Your task to perform on an android device: Search for bose quietcomfort 35 on ebay.com, select the first entry, add it to the cart, then select checkout. Image 0: 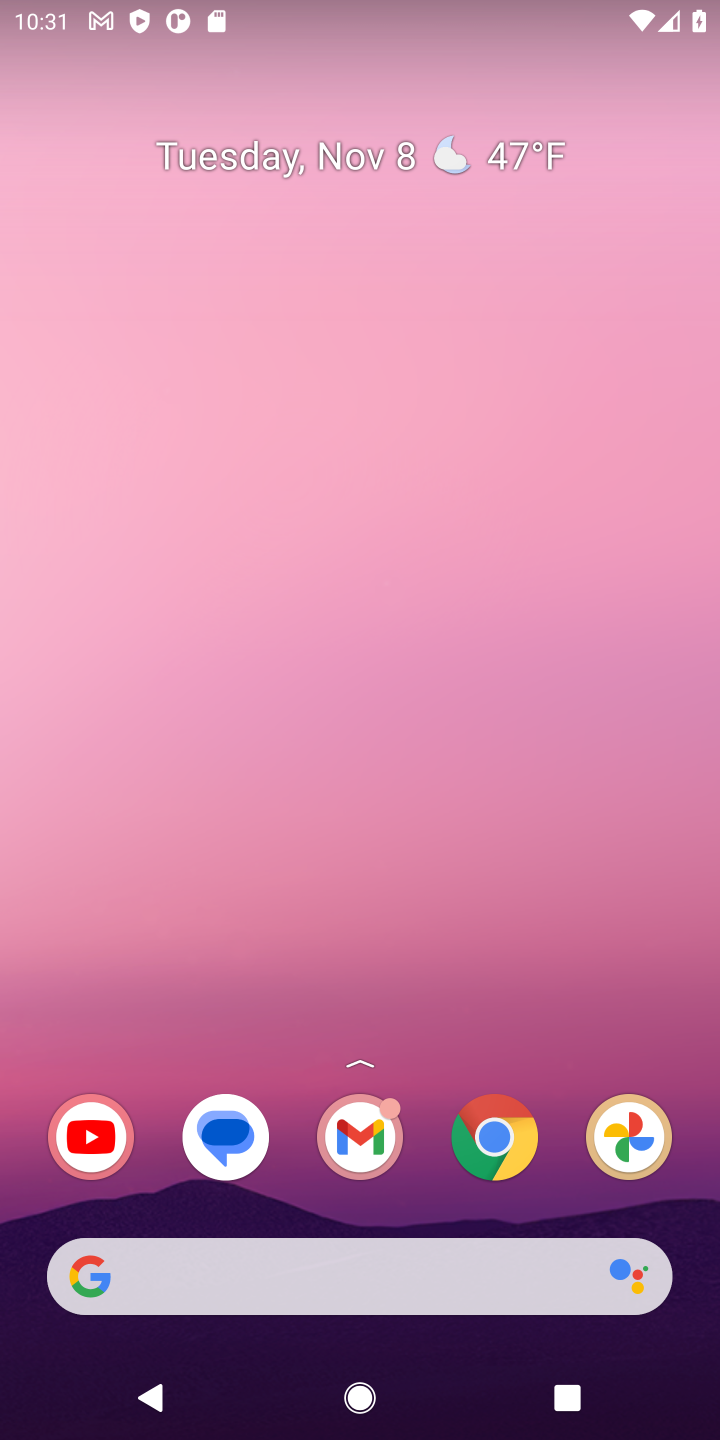
Step 0: click (498, 1138)
Your task to perform on an android device: Search for bose quietcomfort 35 on ebay.com, select the first entry, add it to the cart, then select checkout. Image 1: 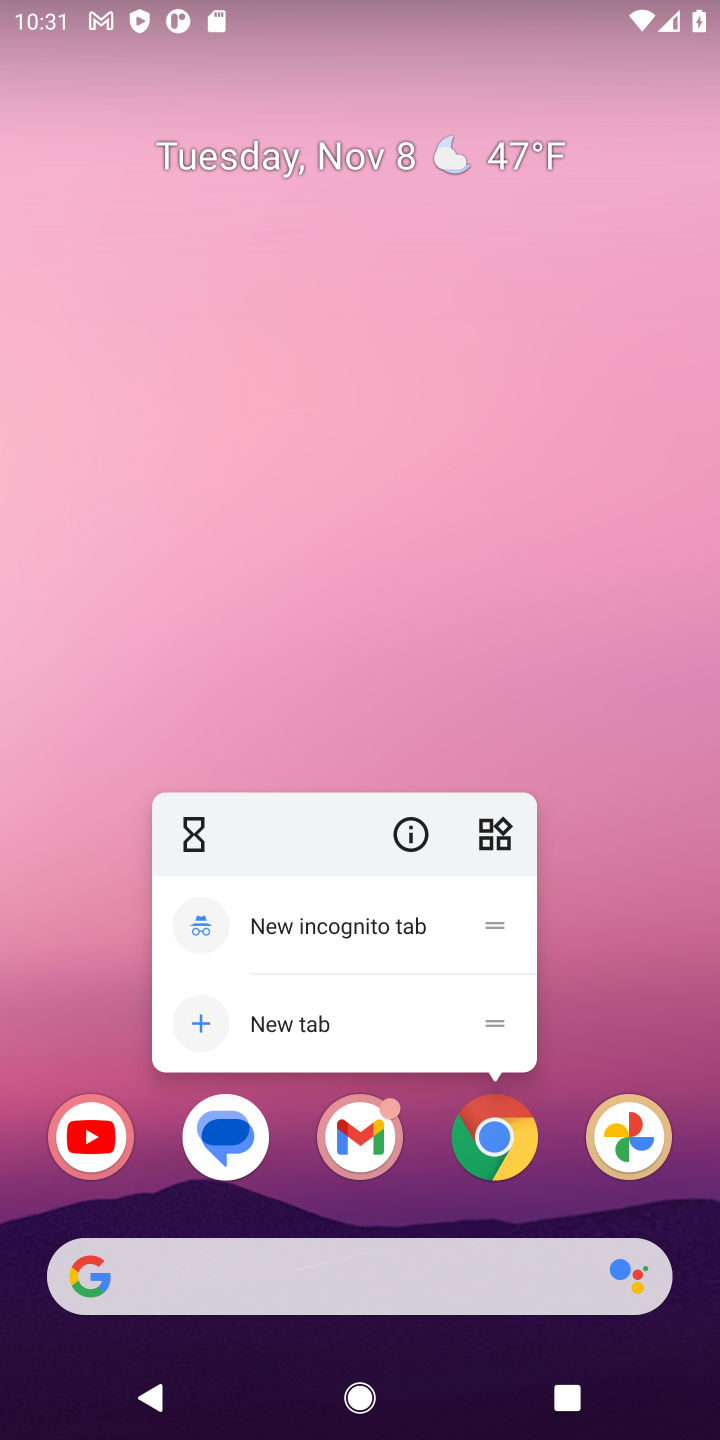
Step 1: click (498, 1138)
Your task to perform on an android device: Search for bose quietcomfort 35 on ebay.com, select the first entry, add it to the cart, then select checkout. Image 2: 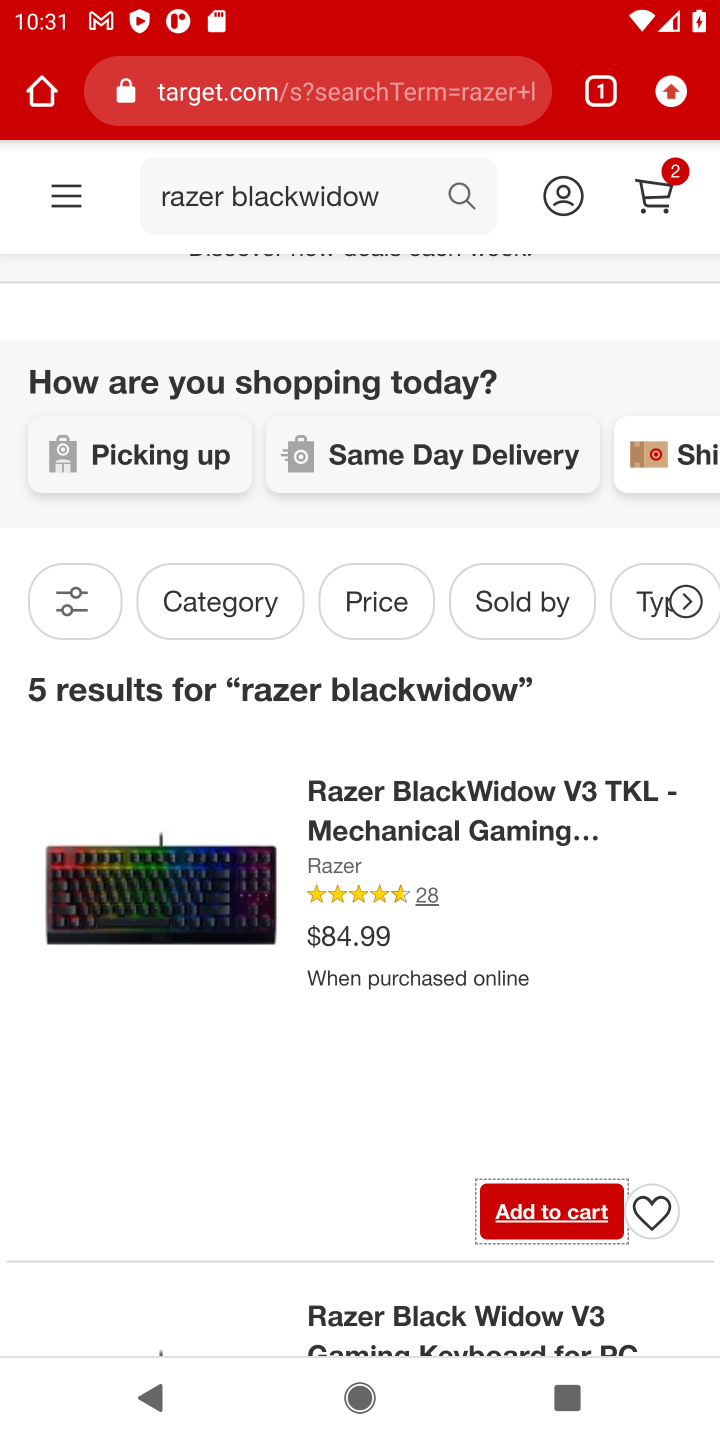
Step 2: click (315, 95)
Your task to perform on an android device: Search for bose quietcomfort 35 on ebay.com, select the first entry, add it to the cart, then select checkout. Image 3: 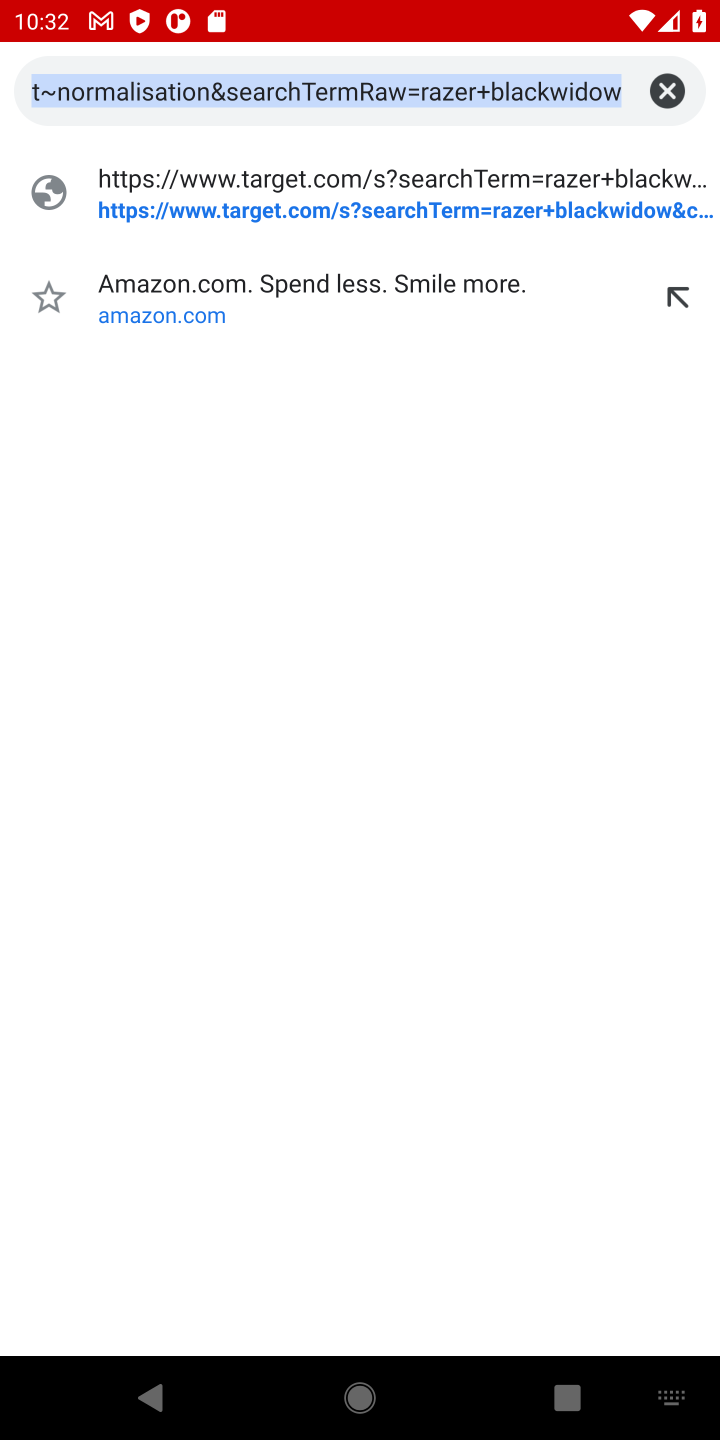
Step 3: click (664, 95)
Your task to perform on an android device: Search for bose quietcomfort 35 on ebay.com, select the first entry, add it to the cart, then select checkout. Image 4: 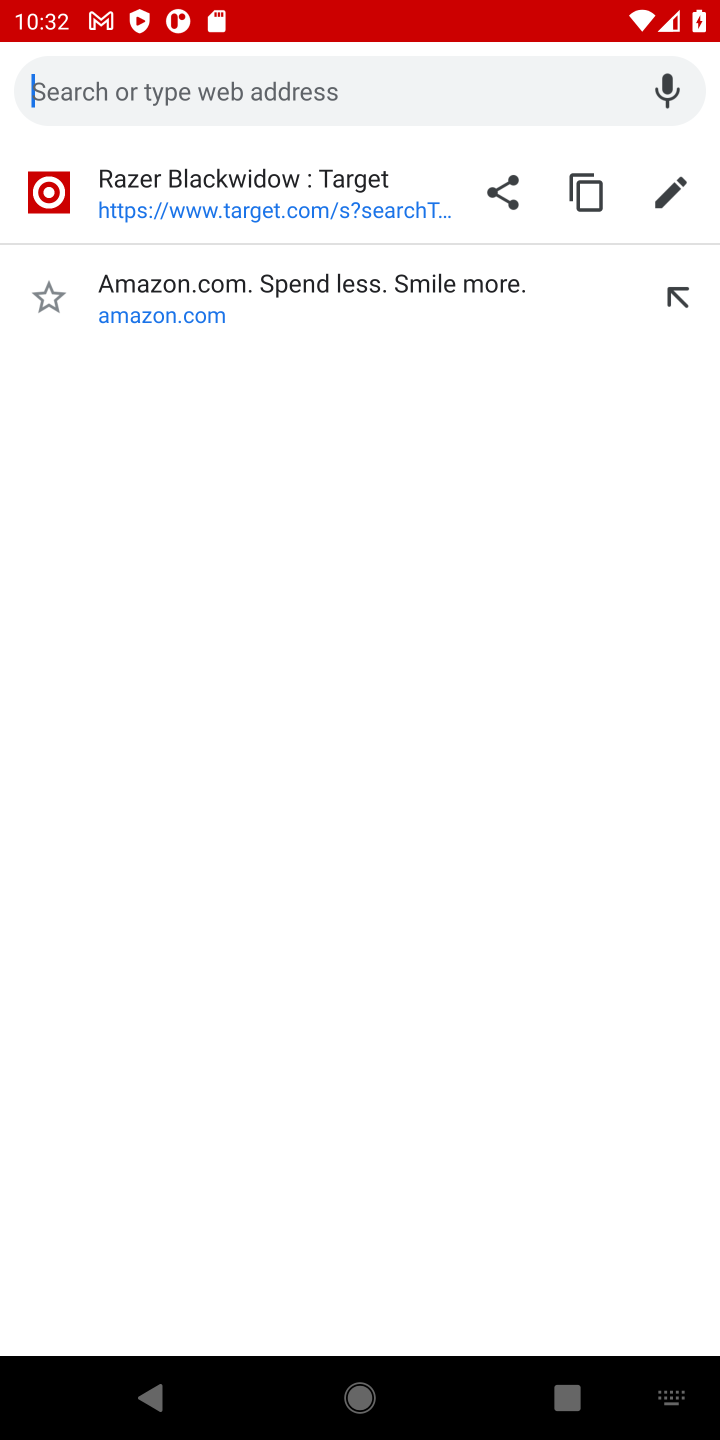
Step 4: type "ebay.com"
Your task to perform on an android device: Search for bose quietcomfort 35 on ebay.com, select the first entry, add it to the cart, then select checkout. Image 5: 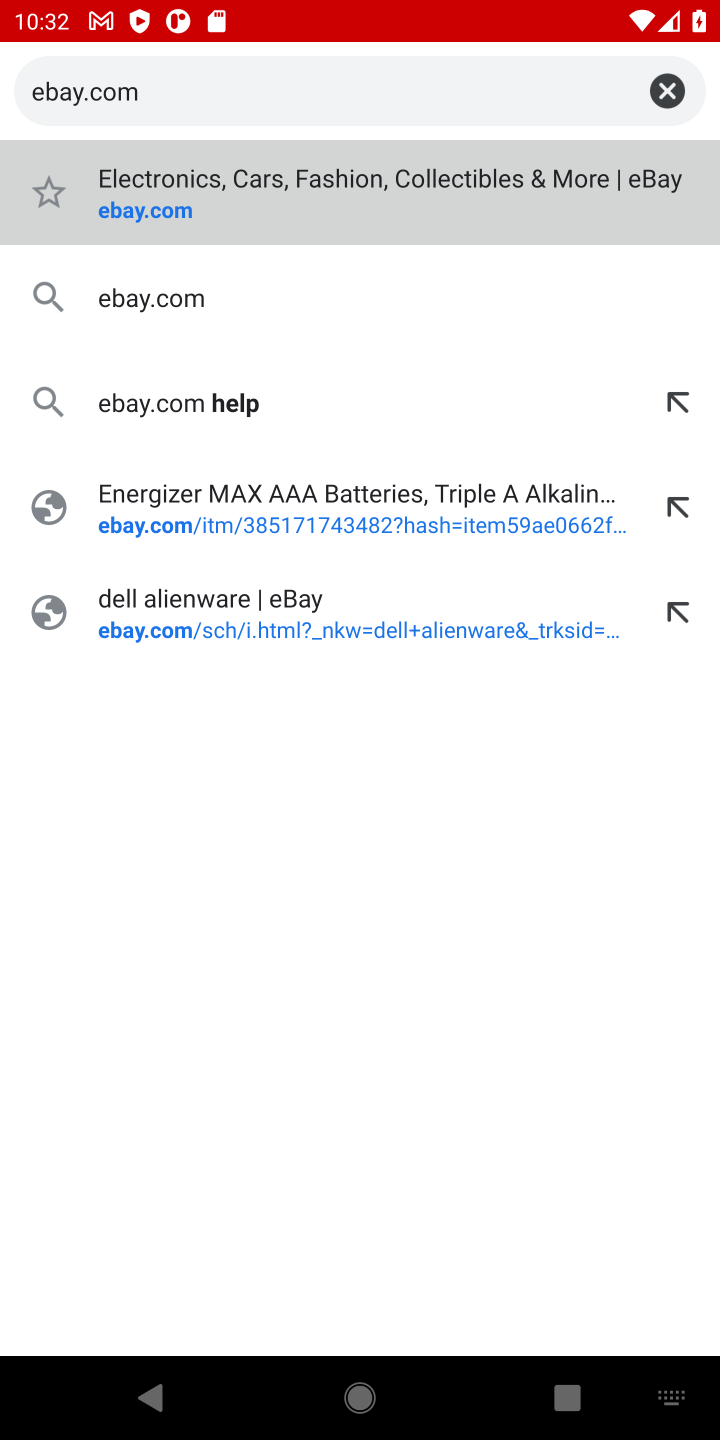
Step 5: click (163, 307)
Your task to perform on an android device: Search for bose quietcomfort 35 on ebay.com, select the first entry, add it to the cart, then select checkout. Image 6: 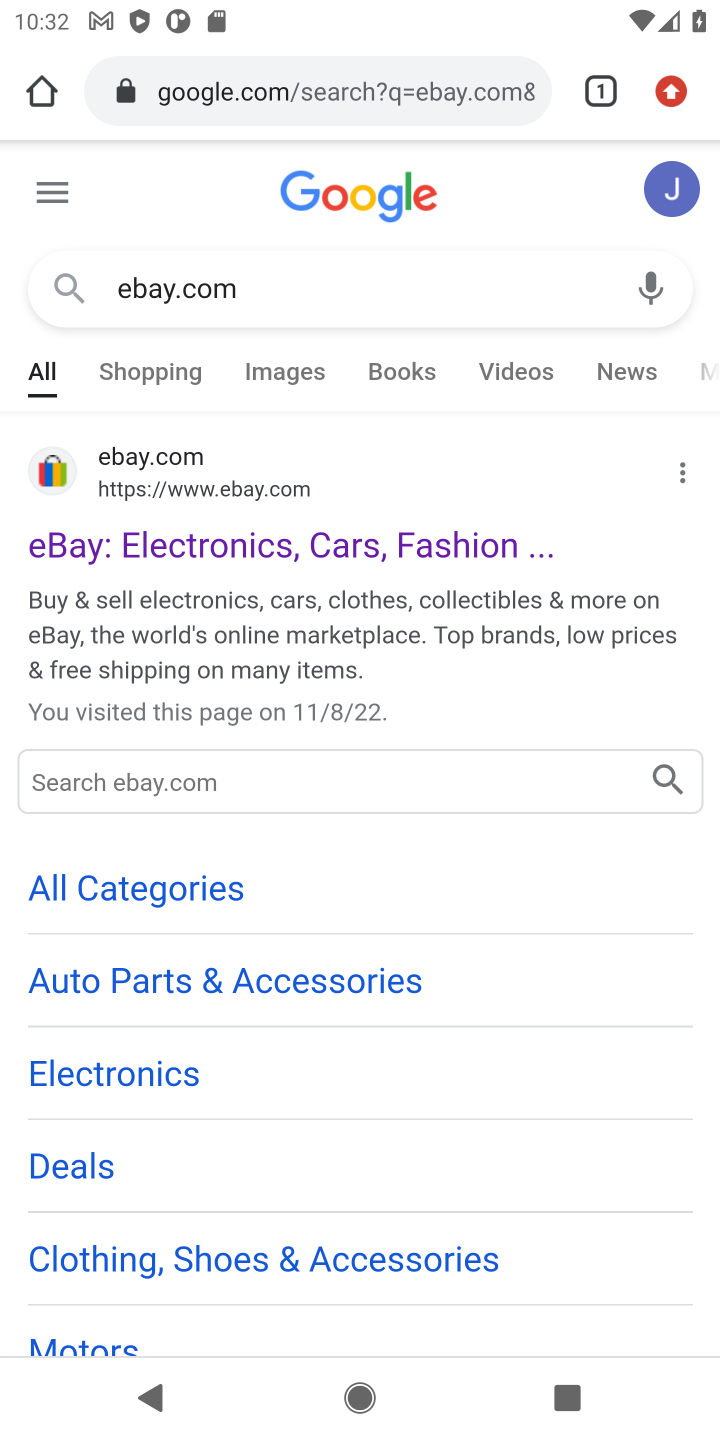
Step 6: click (201, 505)
Your task to perform on an android device: Search for bose quietcomfort 35 on ebay.com, select the first entry, add it to the cart, then select checkout. Image 7: 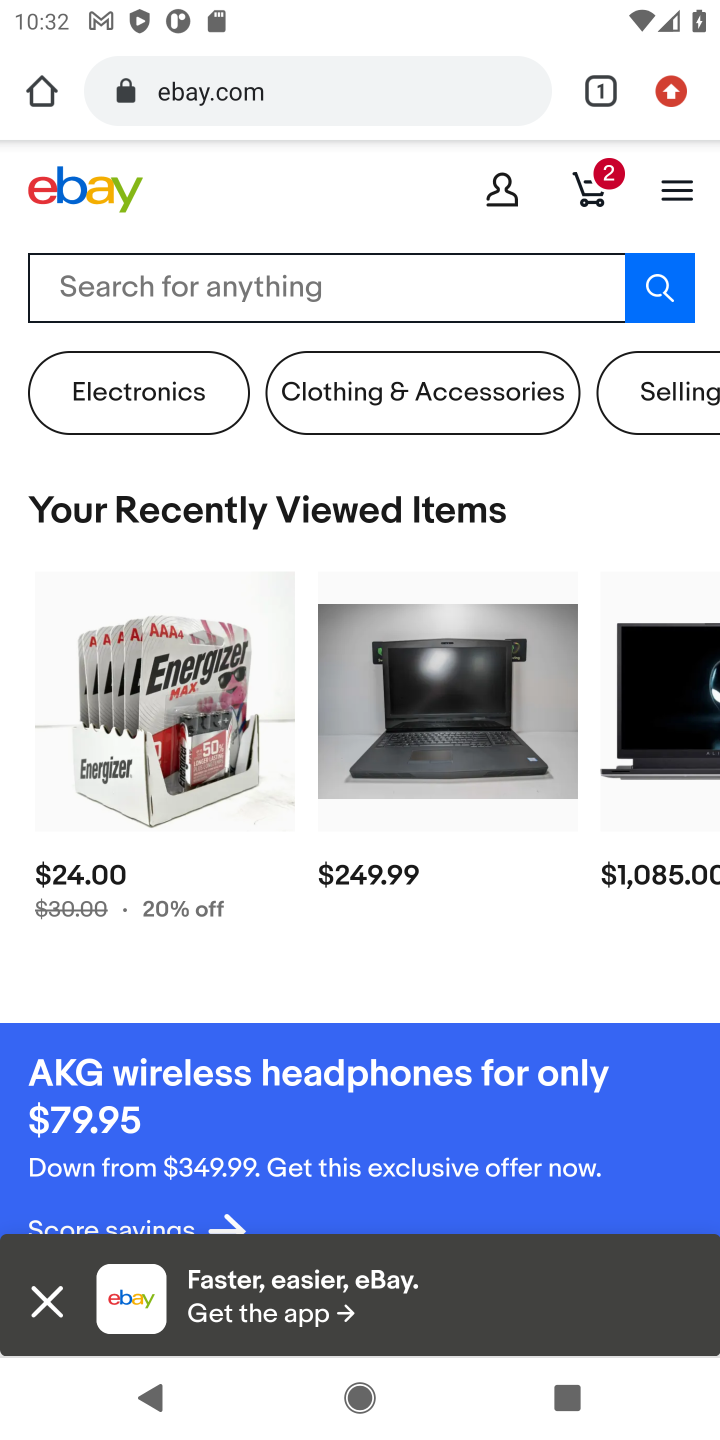
Step 7: click (287, 278)
Your task to perform on an android device: Search for bose quietcomfort 35 on ebay.com, select the first entry, add it to the cart, then select checkout. Image 8: 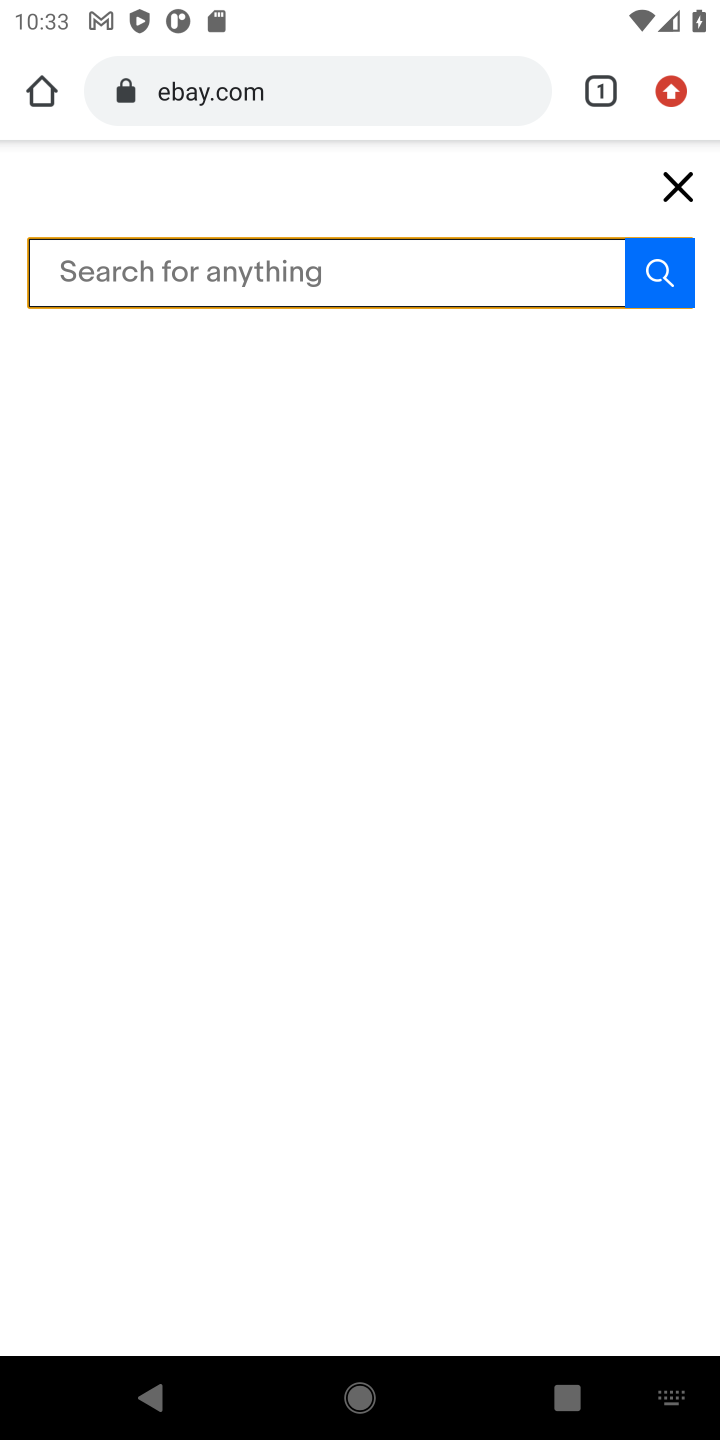
Step 8: type "bose quietcomfort 35 "
Your task to perform on an android device: Search for bose quietcomfort 35 on ebay.com, select the first entry, add it to the cart, then select checkout. Image 9: 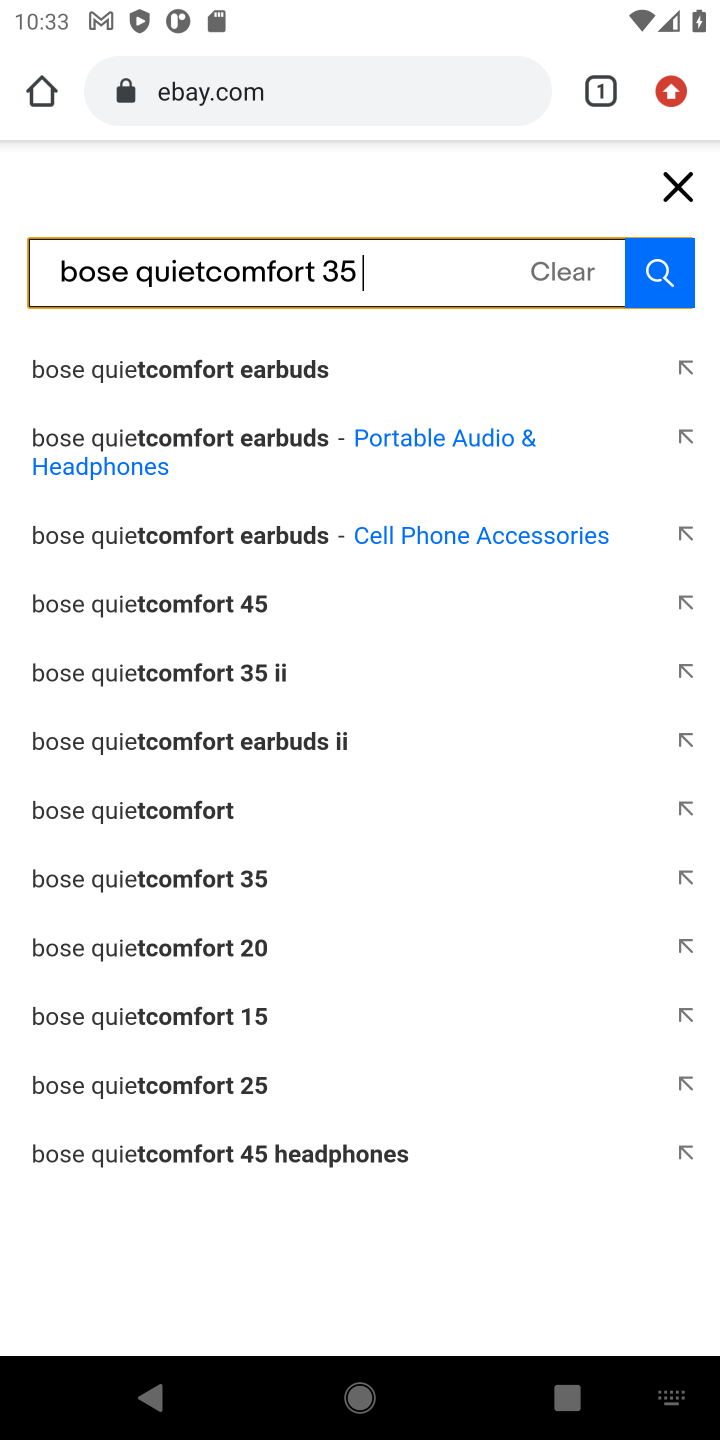
Step 9: click (208, 880)
Your task to perform on an android device: Search for bose quietcomfort 35 on ebay.com, select the first entry, add it to the cart, then select checkout. Image 10: 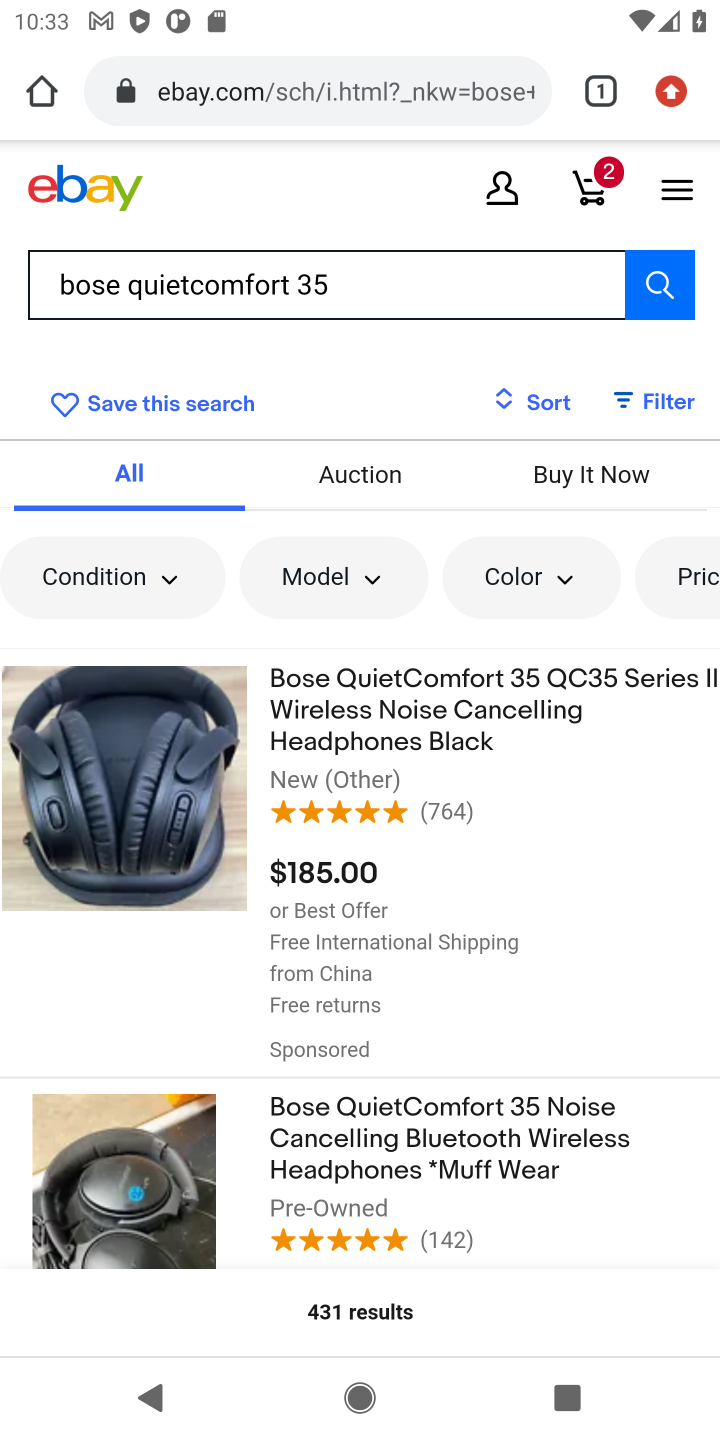
Step 10: drag from (580, 1167) to (571, 779)
Your task to perform on an android device: Search for bose quietcomfort 35 on ebay.com, select the first entry, add it to the cart, then select checkout. Image 11: 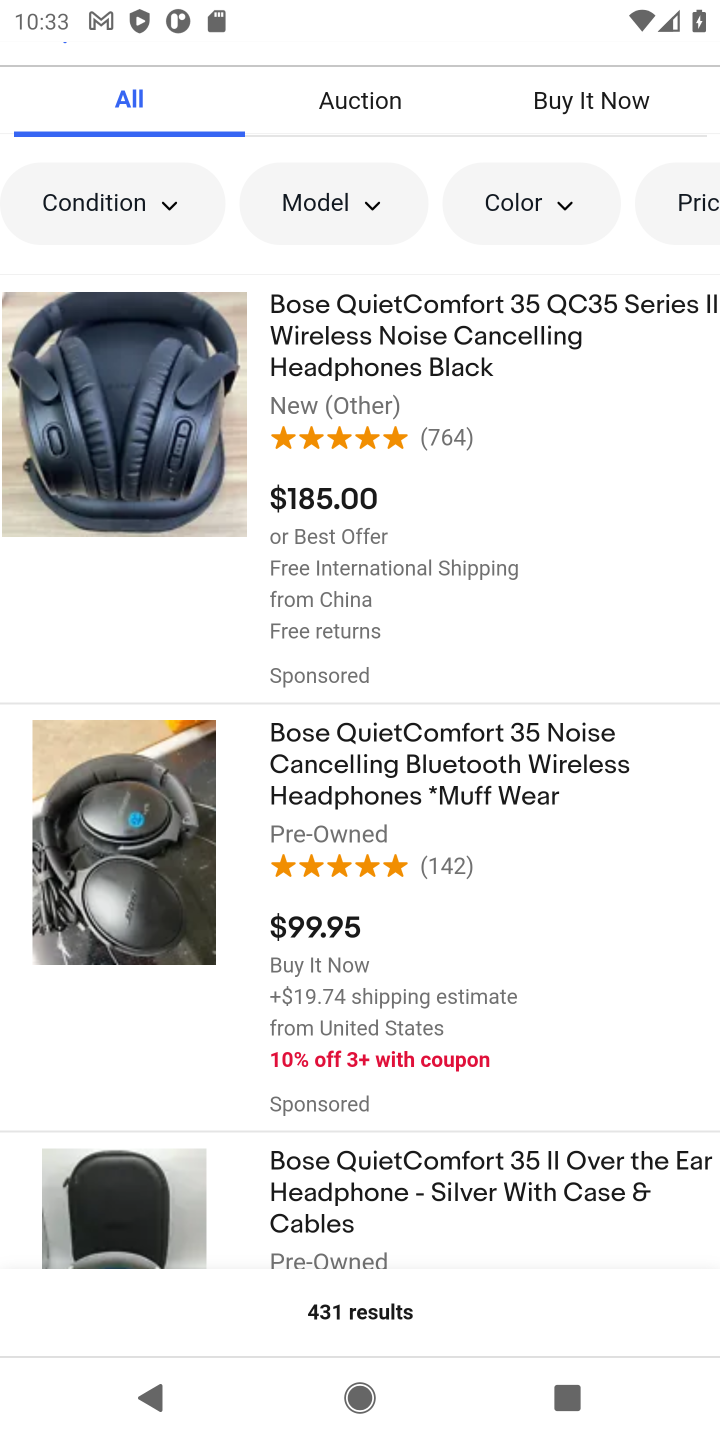
Step 11: click (452, 353)
Your task to perform on an android device: Search for bose quietcomfort 35 on ebay.com, select the first entry, add it to the cart, then select checkout. Image 12: 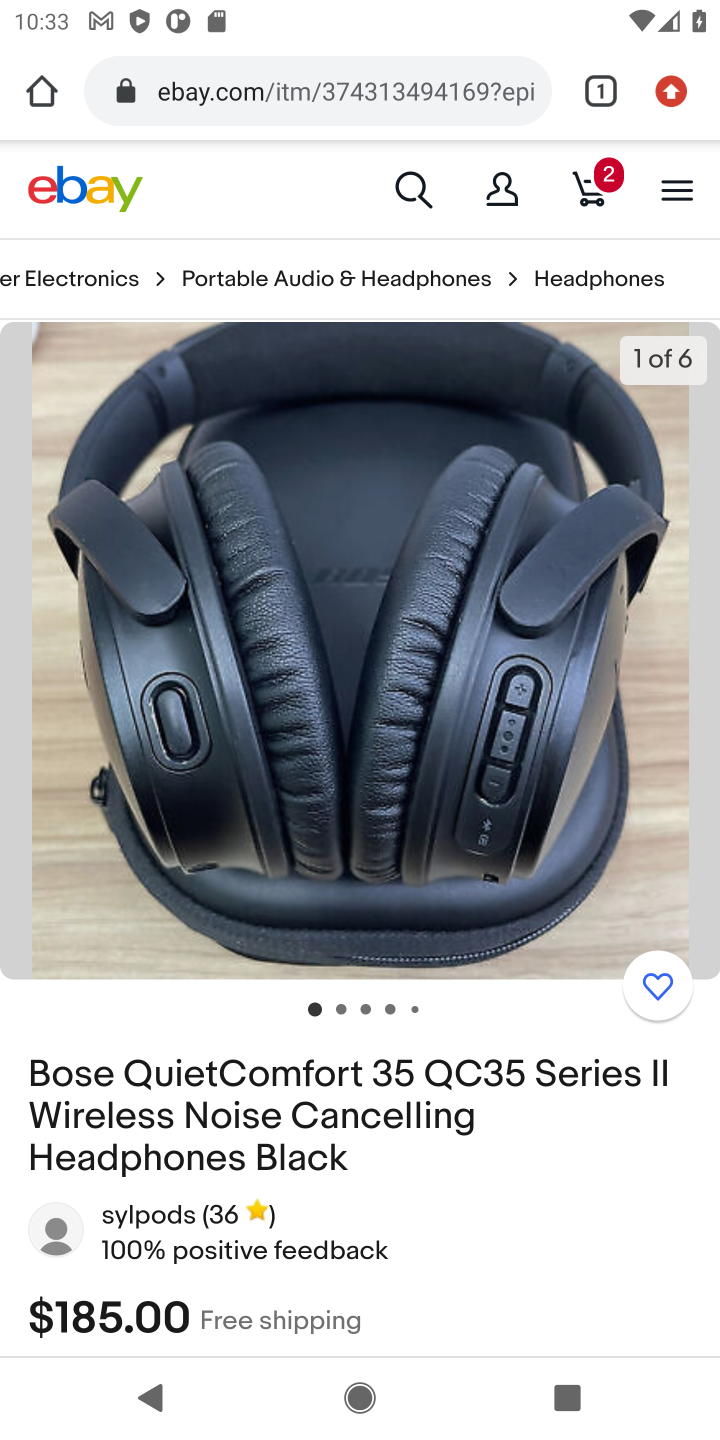
Step 12: drag from (481, 1057) to (453, 529)
Your task to perform on an android device: Search for bose quietcomfort 35 on ebay.com, select the first entry, add it to the cart, then select checkout. Image 13: 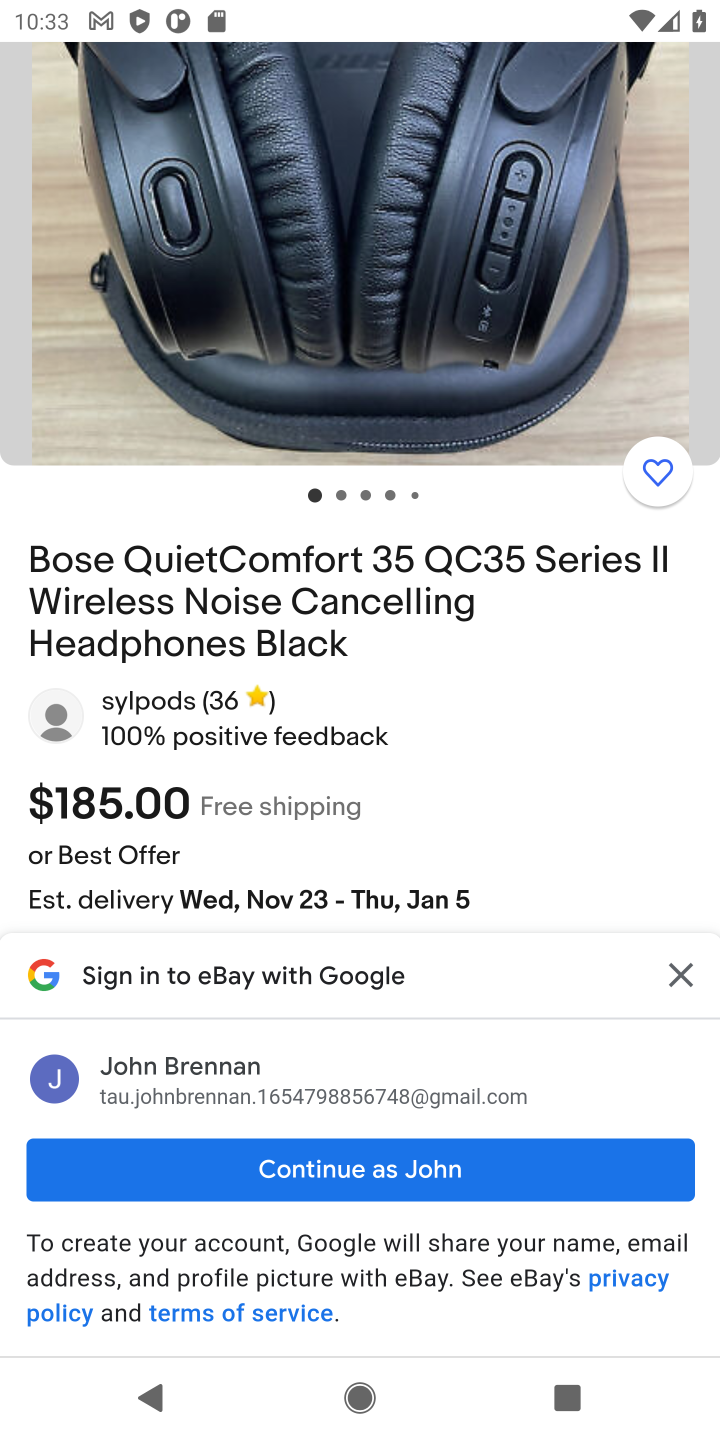
Step 13: click (679, 968)
Your task to perform on an android device: Search for bose quietcomfort 35 on ebay.com, select the first entry, add it to the cart, then select checkout. Image 14: 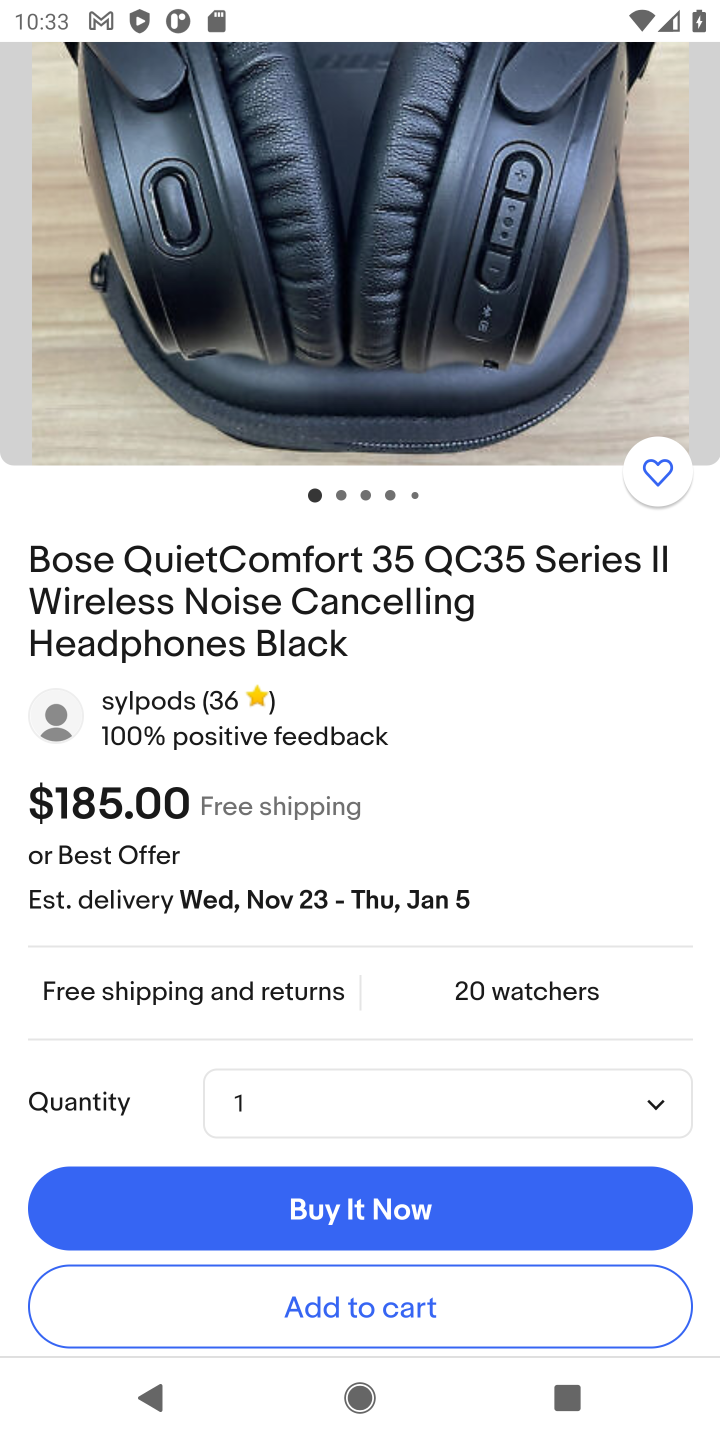
Step 14: click (360, 1303)
Your task to perform on an android device: Search for bose quietcomfort 35 on ebay.com, select the first entry, add it to the cart, then select checkout. Image 15: 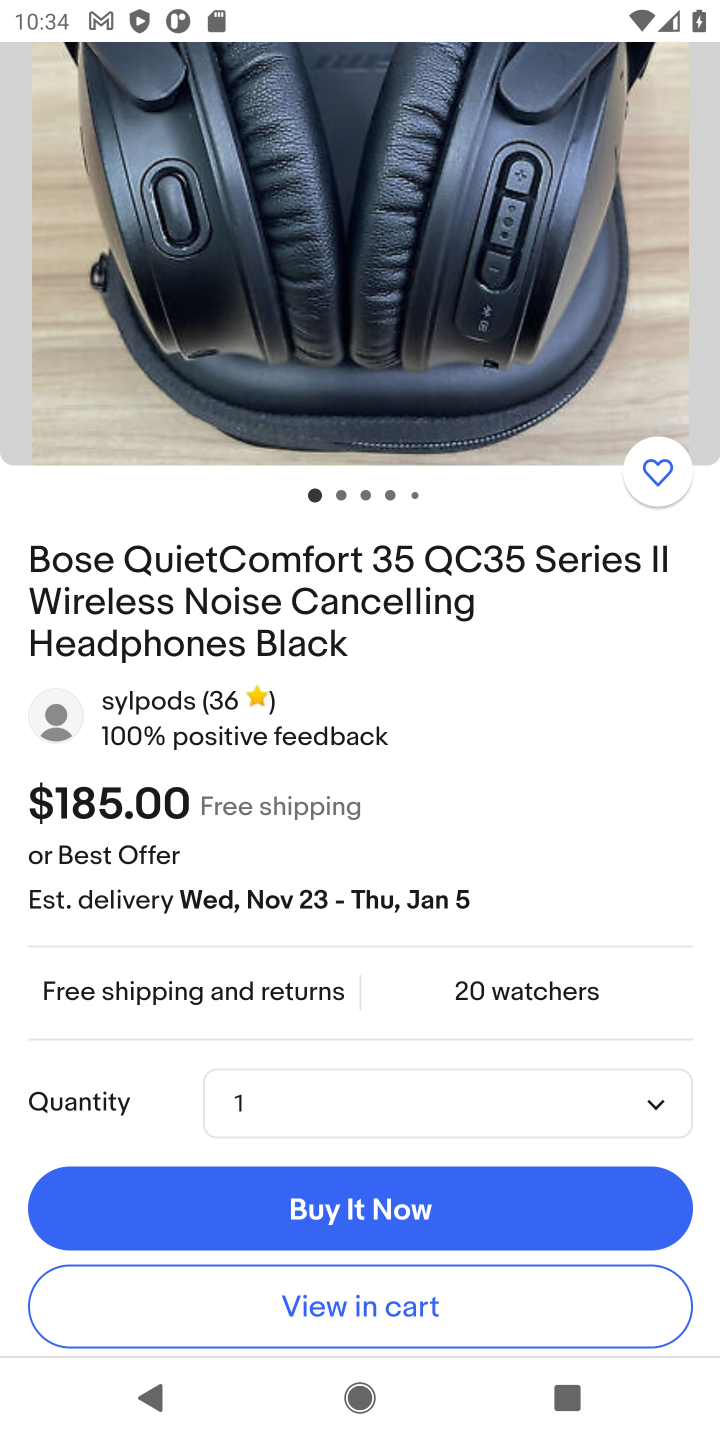
Step 15: click (360, 1303)
Your task to perform on an android device: Search for bose quietcomfort 35 on ebay.com, select the first entry, add it to the cart, then select checkout. Image 16: 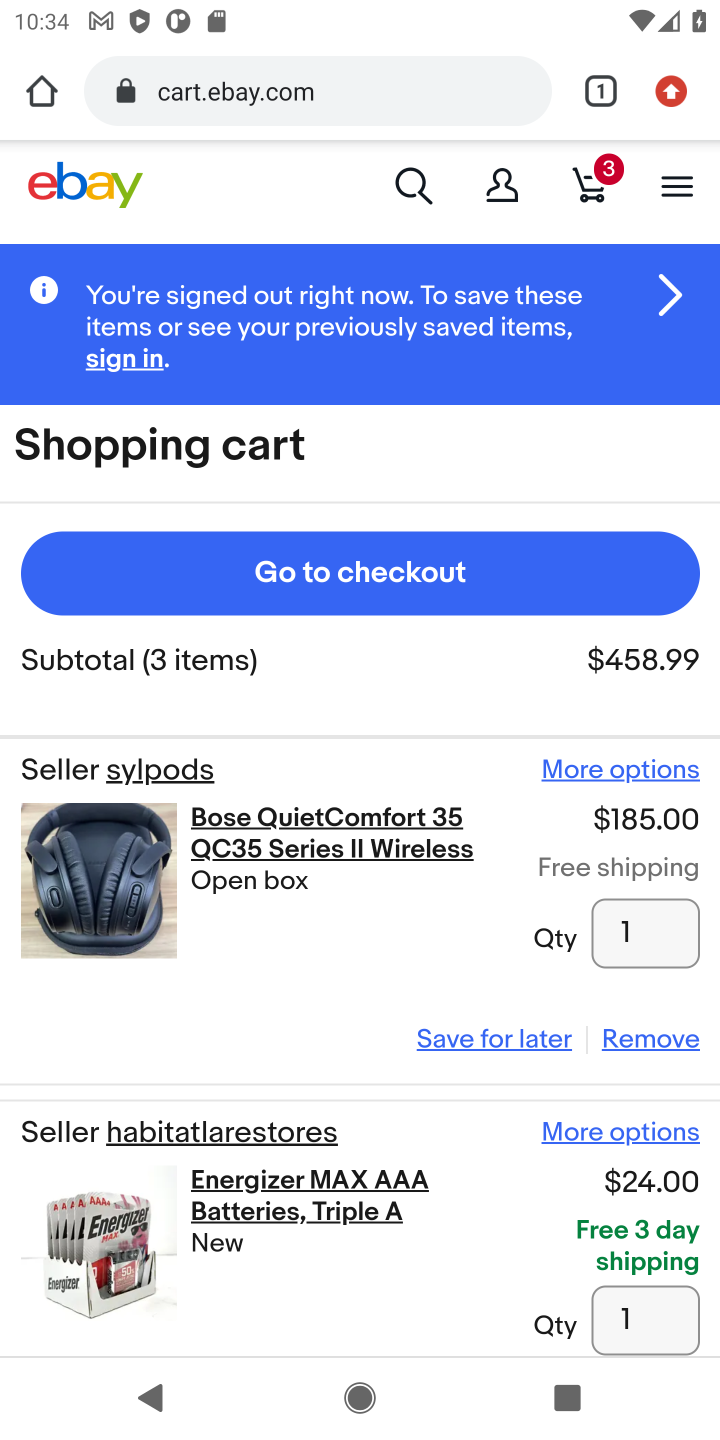
Step 16: click (426, 563)
Your task to perform on an android device: Search for bose quietcomfort 35 on ebay.com, select the first entry, add it to the cart, then select checkout. Image 17: 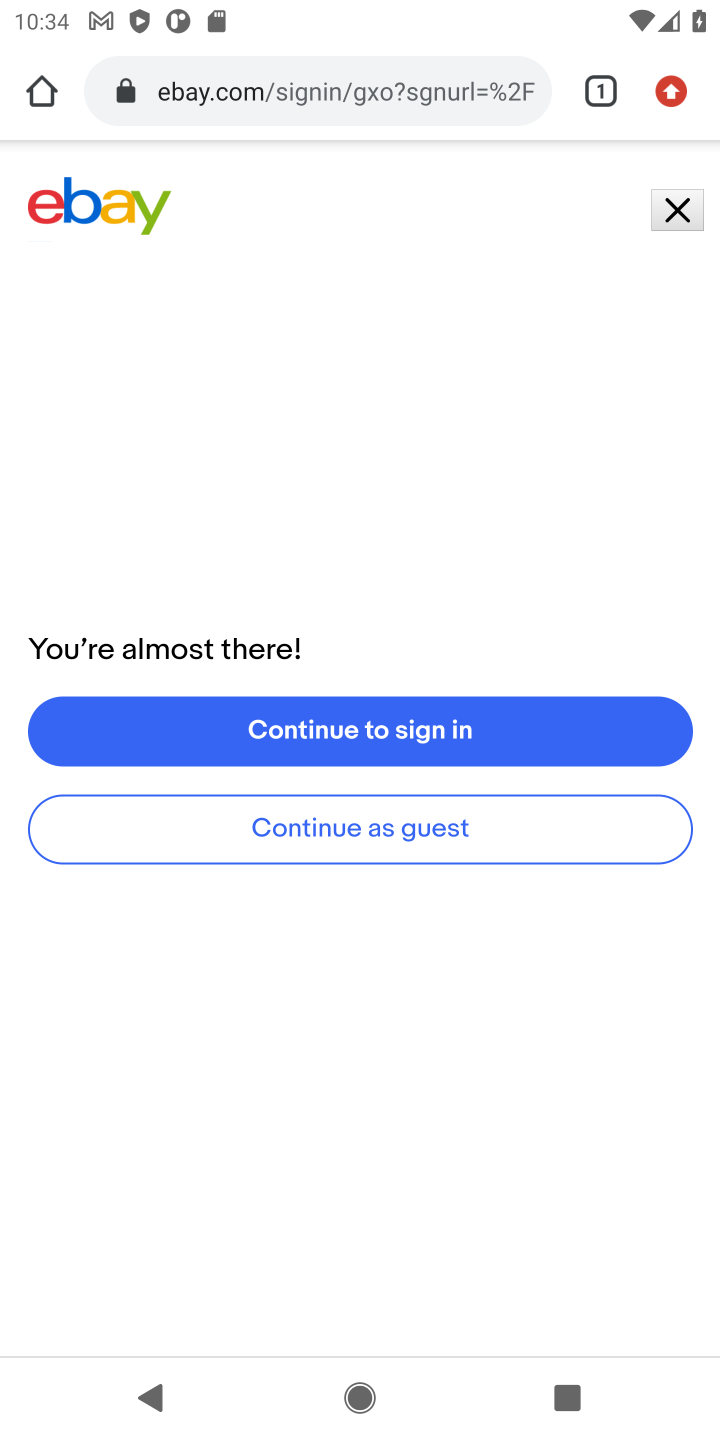
Step 17: task complete